Your task to perform on an android device: Check the price on the Dyson V11 Motorhead on Best Buy Image 0: 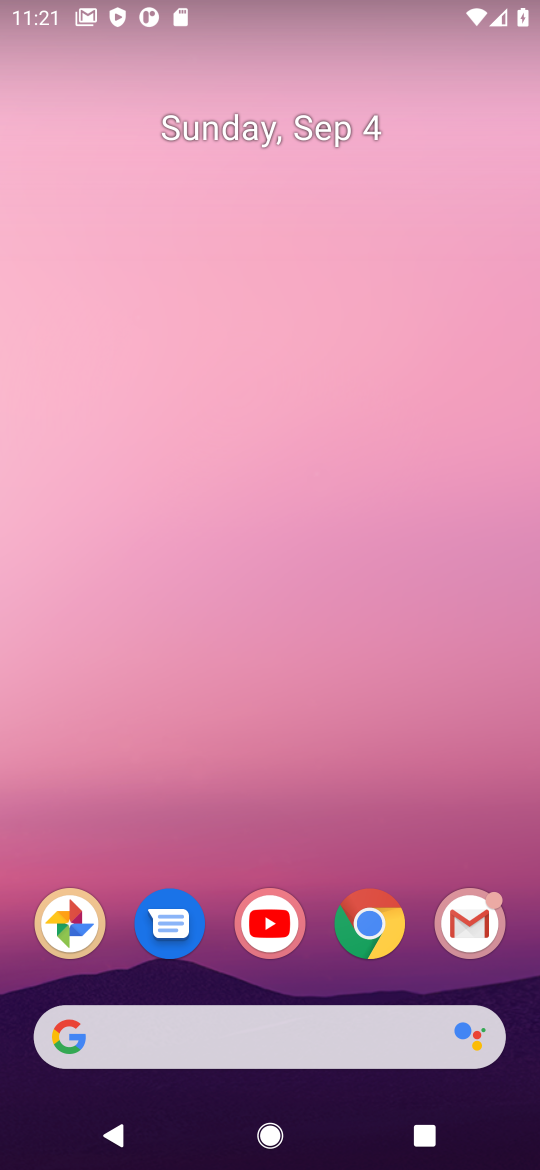
Step 0: click (387, 920)
Your task to perform on an android device: Check the price on the Dyson V11 Motorhead on Best Buy Image 1: 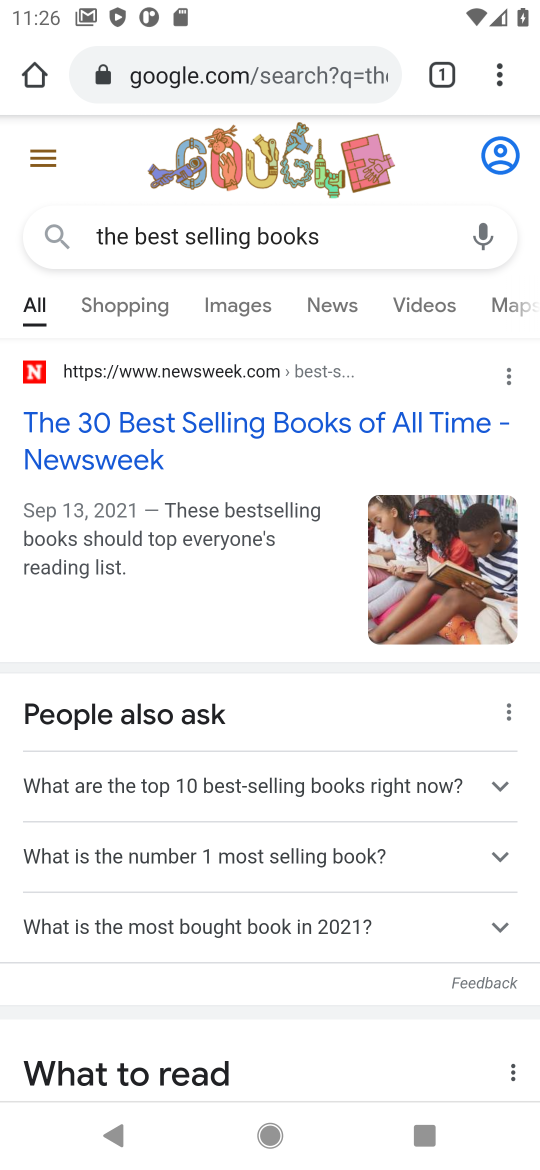
Step 1: click (193, 64)
Your task to perform on an android device: Check the price on the Dyson V11 Motorhead on Best Buy Image 2: 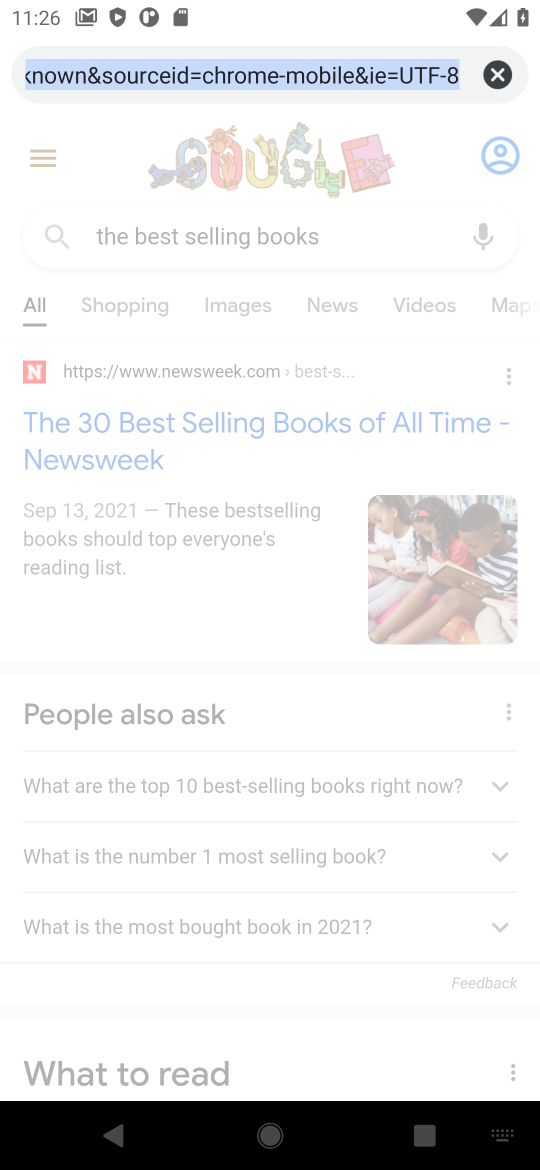
Step 2: click (495, 75)
Your task to perform on an android device: Check the price on the Dyson V11 Motorhead on Best Buy Image 3: 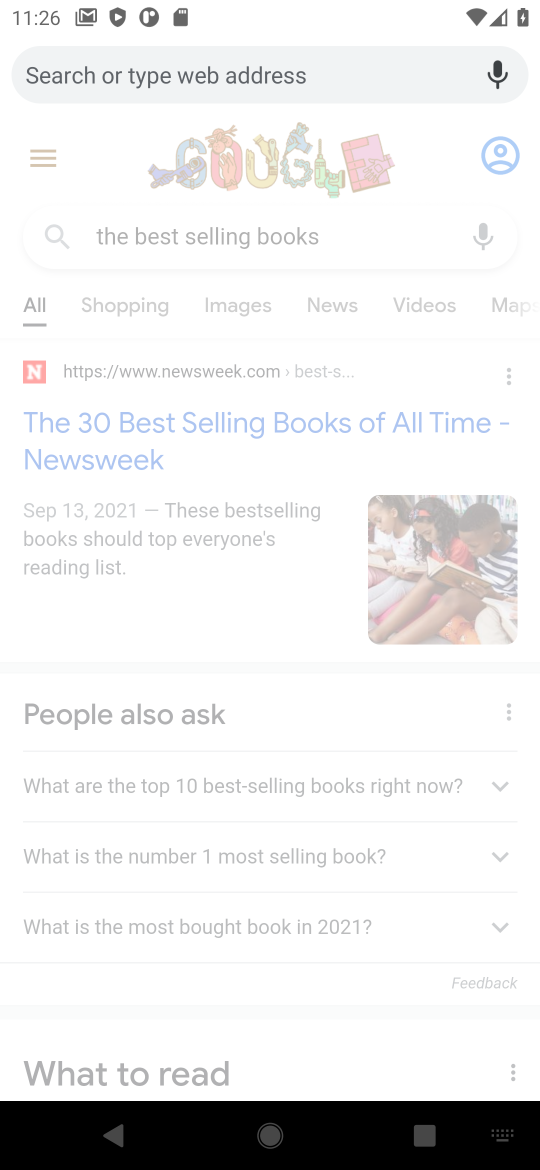
Step 3: type "the price on the Dyson V11 Motorhead on Best Buy"
Your task to perform on an android device: Check the price on the Dyson V11 Motorhead on Best Buy Image 4: 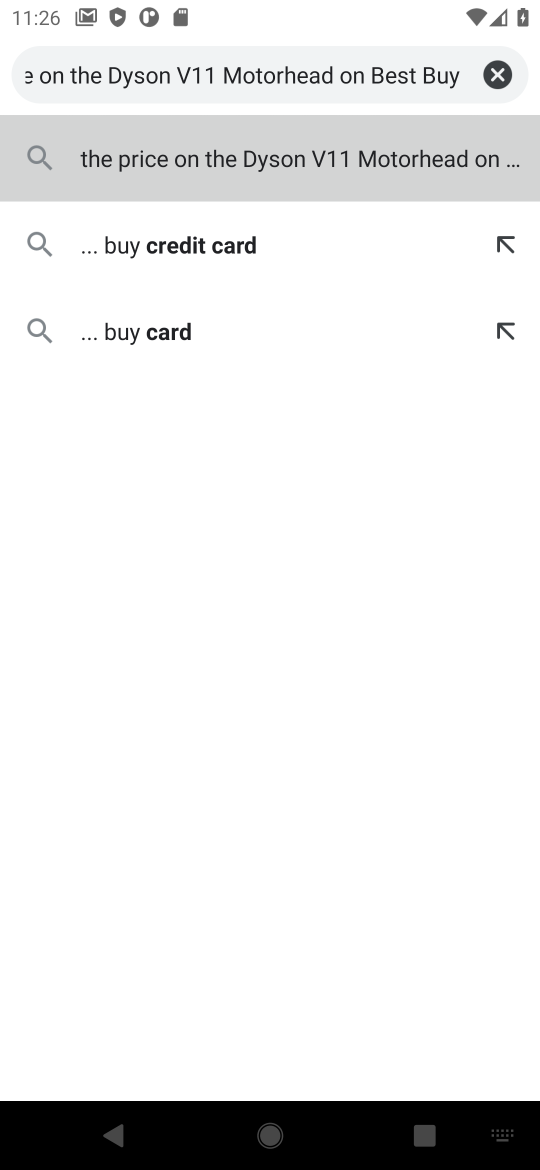
Step 4: click (382, 172)
Your task to perform on an android device: Check the price on the Dyson V11 Motorhead on Best Buy Image 5: 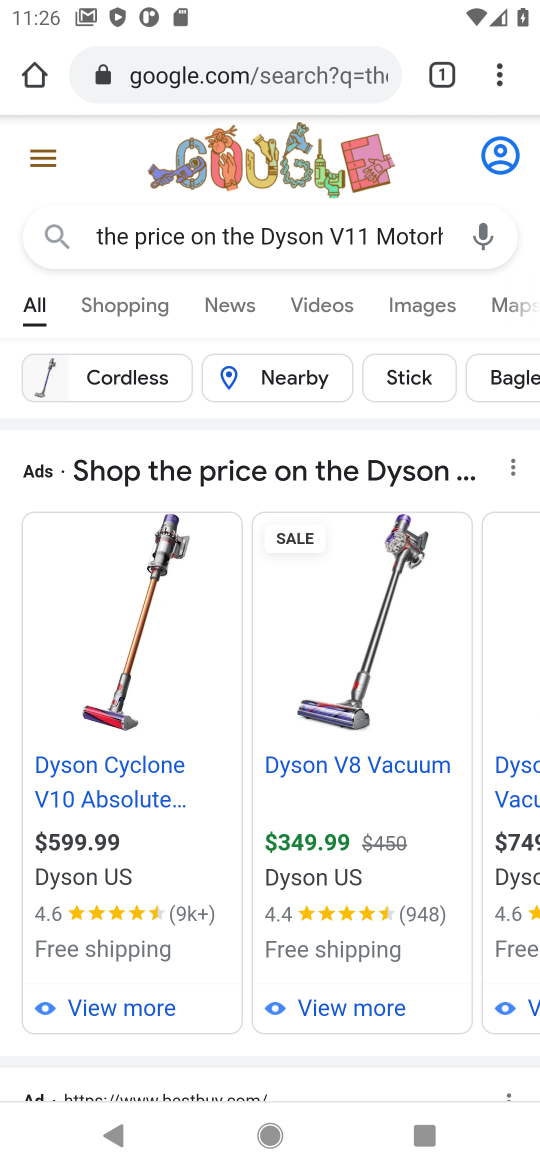
Step 5: drag from (64, 902) to (77, 676)
Your task to perform on an android device: Check the price on the Dyson V11 Motorhead on Best Buy Image 6: 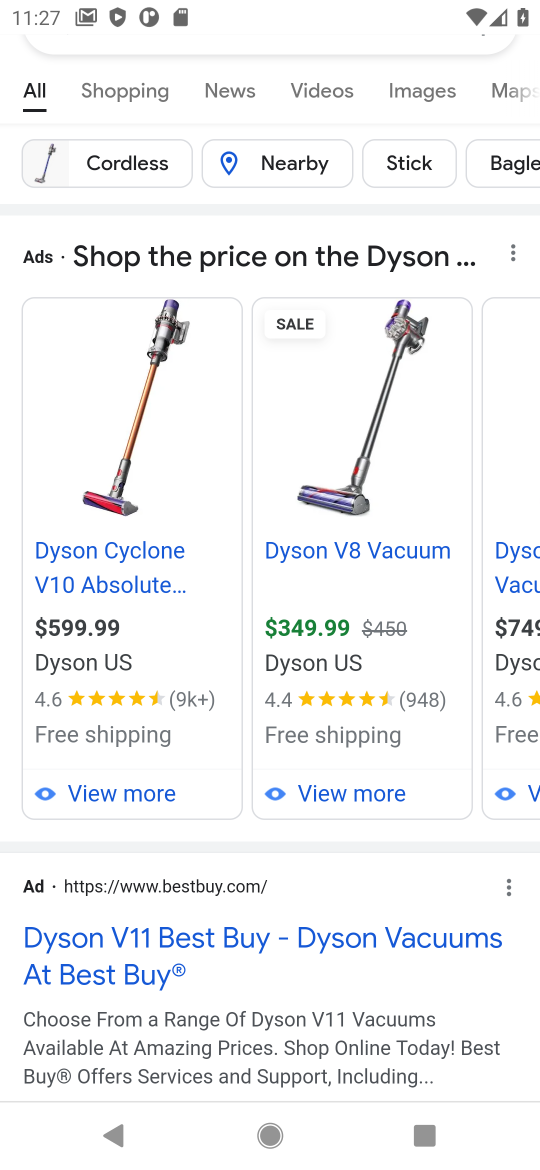
Step 6: drag from (15, 1087) to (88, 602)
Your task to perform on an android device: Check the price on the Dyson V11 Motorhead on Best Buy Image 7: 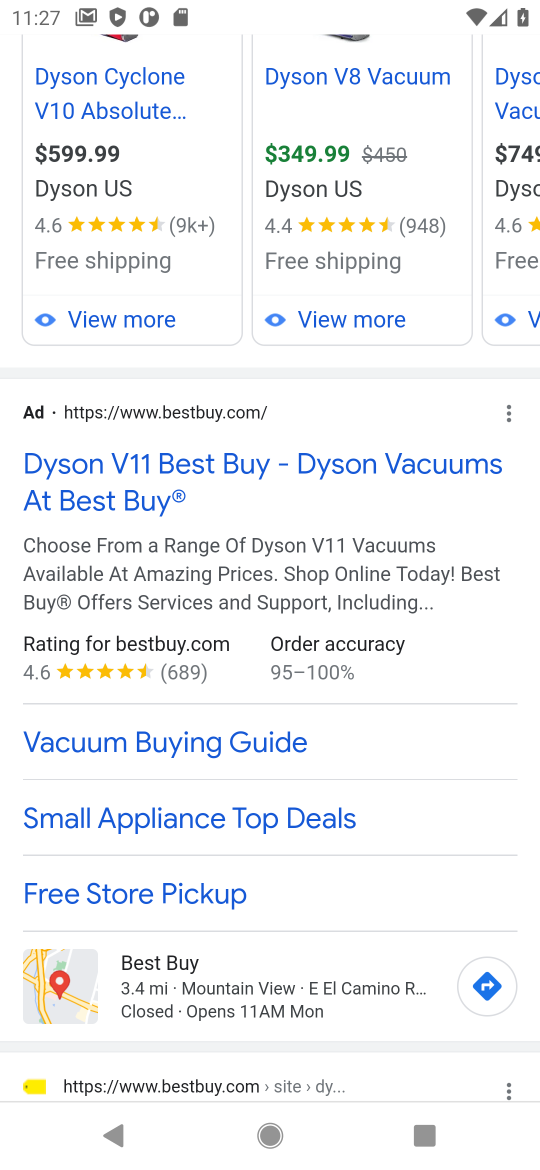
Step 7: click (73, 550)
Your task to perform on an android device: Check the price on the Dyson V11 Motorhead on Best Buy Image 8: 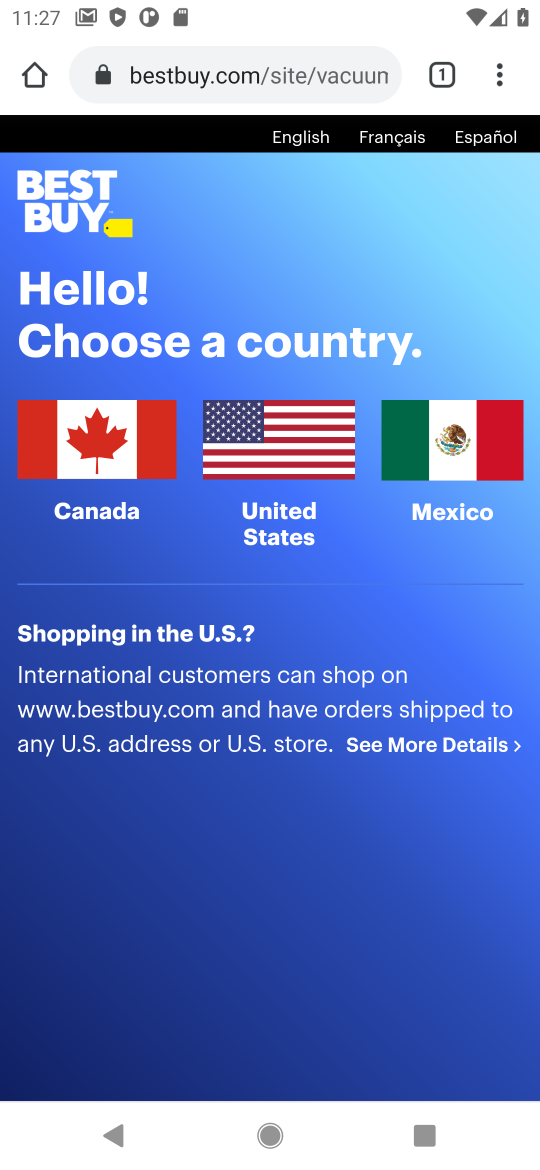
Step 8: task complete